Your task to perform on an android device: turn notification dots off Image 0: 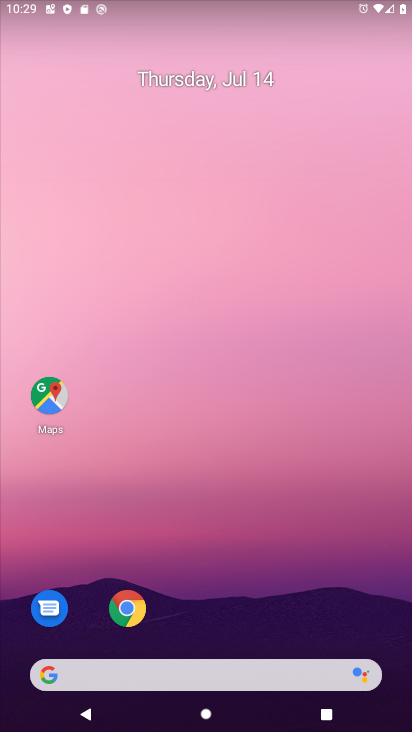
Step 0: drag from (230, 721) to (208, 142)
Your task to perform on an android device: turn notification dots off Image 1: 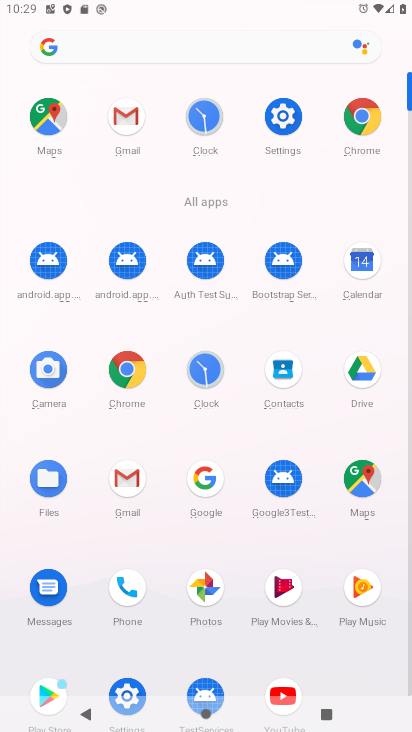
Step 1: click (283, 116)
Your task to perform on an android device: turn notification dots off Image 2: 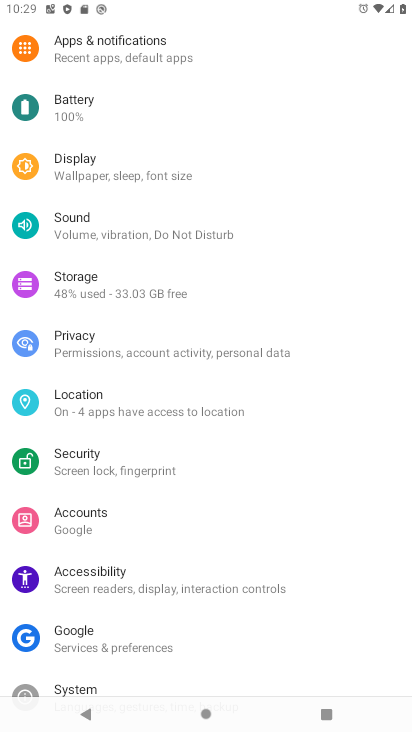
Step 2: click (91, 41)
Your task to perform on an android device: turn notification dots off Image 3: 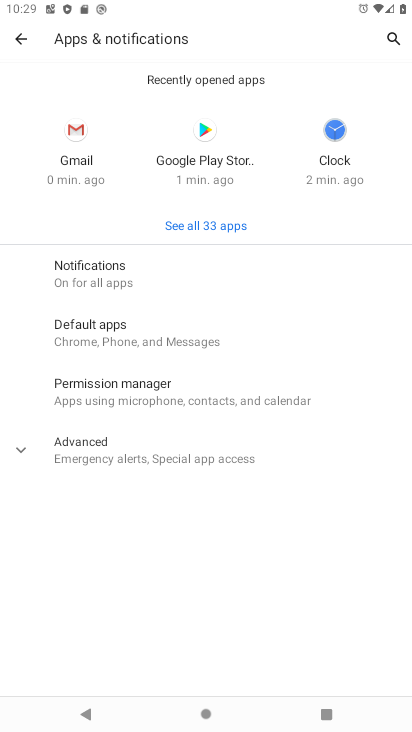
Step 3: click (98, 269)
Your task to perform on an android device: turn notification dots off Image 4: 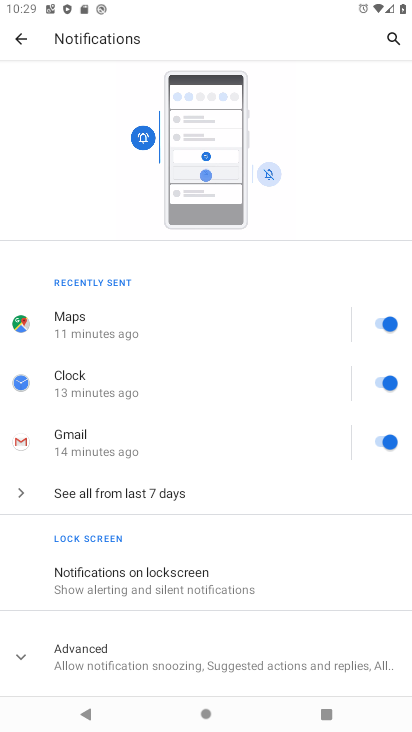
Step 4: click (98, 651)
Your task to perform on an android device: turn notification dots off Image 5: 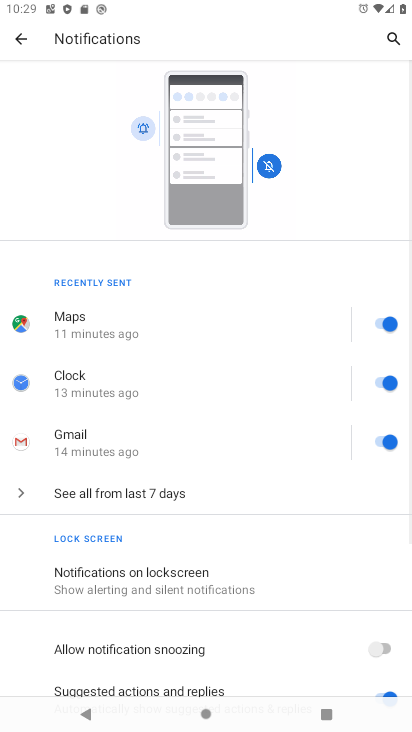
Step 5: drag from (149, 673) to (133, 379)
Your task to perform on an android device: turn notification dots off Image 6: 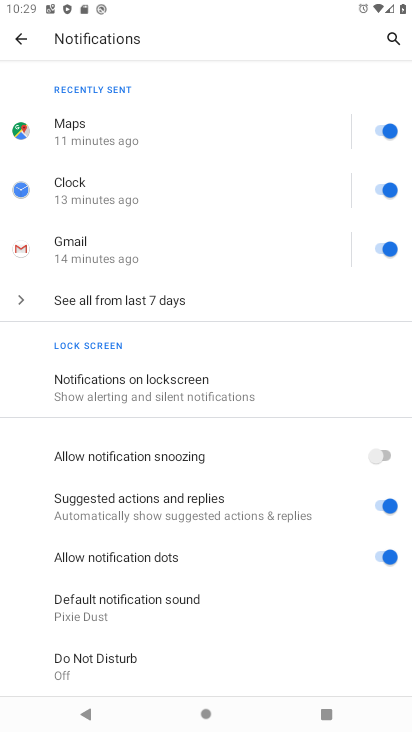
Step 6: click (380, 558)
Your task to perform on an android device: turn notification dots off Image 7: 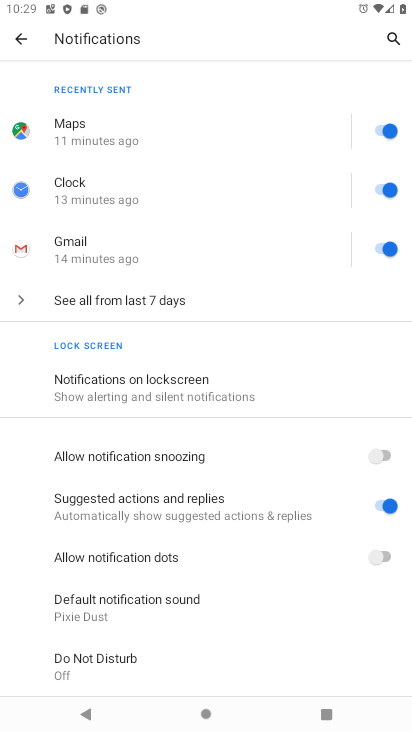
Step 7: task complete